Your task to perform on an android device: check battery use Image 0: 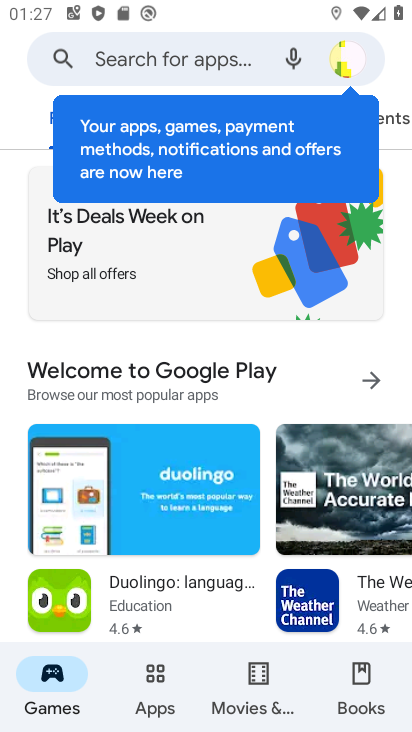
Step 0: press home button
Your task to perform on an android device: check battery use Image 1: 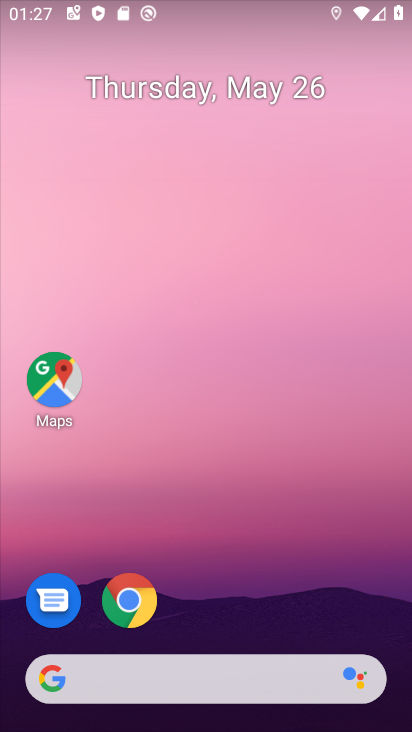
Step 1: drag from (285, 576) to (187, 101)
Your task to perform on an android device: check battery use Image 2: 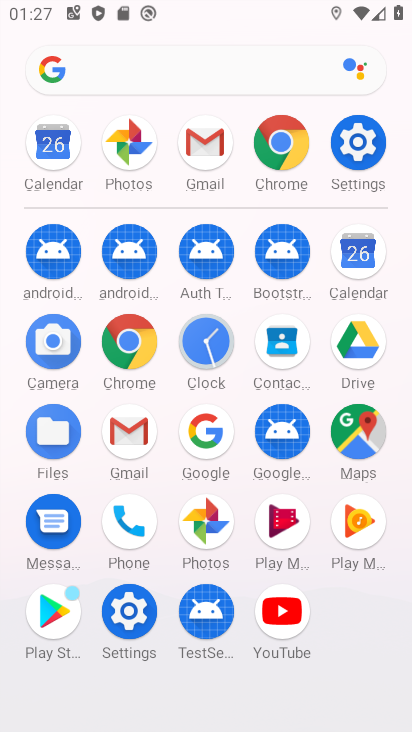
Step 2: click (370, 145)
Your task to perform on an android device: check battery use Image 3: 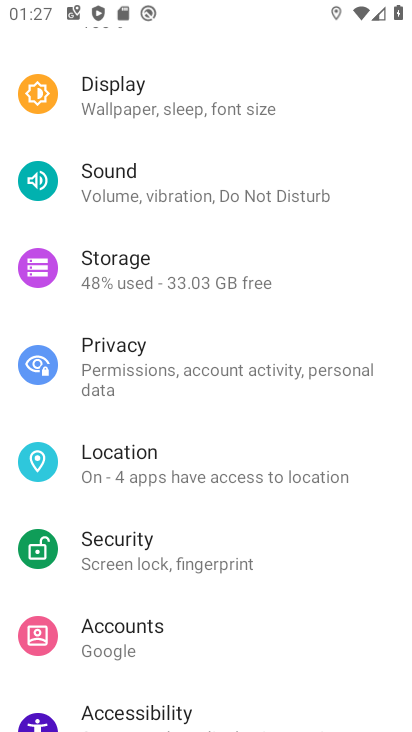
Step 3: drag from (261, 193) to (280, 495)
Your task to perform on an android device: check battery use Image 4: 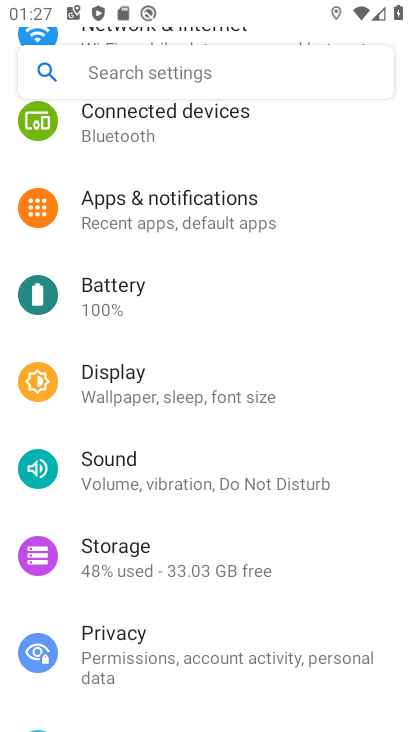
Step 4: click (200, 296)
Your task to perform on an android device: check battery use Image 5: 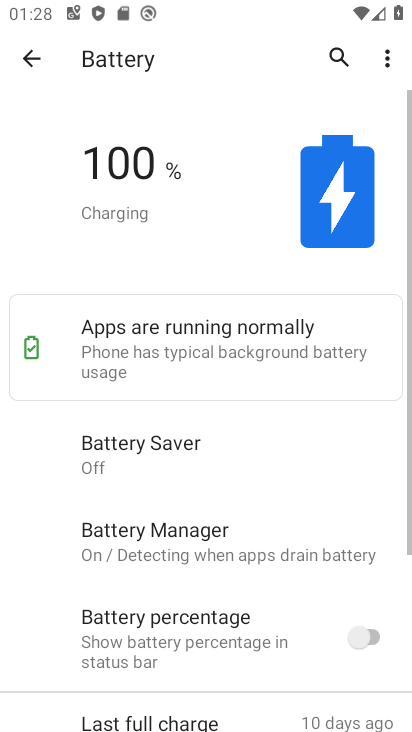
Step 5: task complete